Your task to perform on an android device: change notifications settings Image 0: 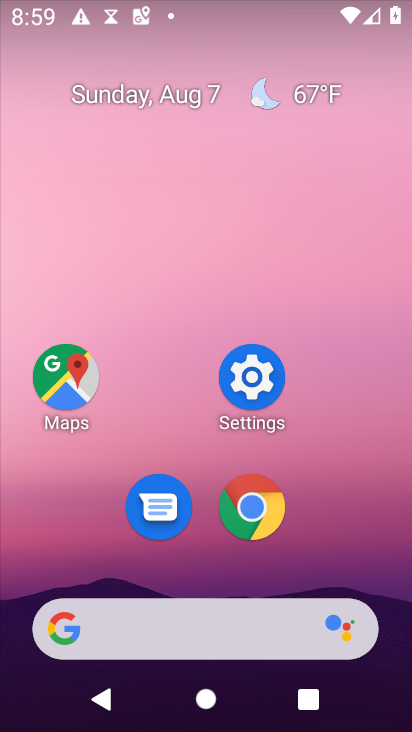
Step 0: click (251, 381)
Your task to perform on an android device: change notifications settings Image 1: 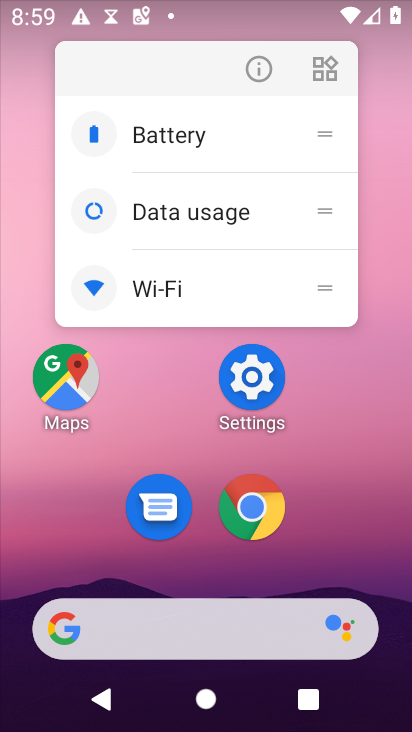
Step 1: click (251, 381)
Your task to perform on an android device: change notifications settings Image 2: 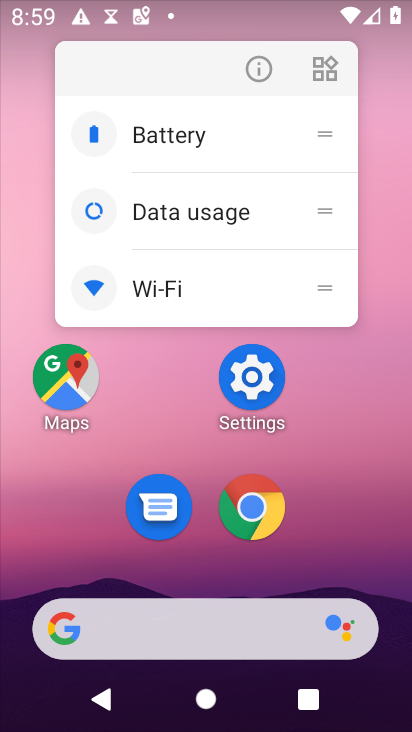
Step 2: click (251, 381)
Your task to perform on an android device: change notifications settings Image 3: 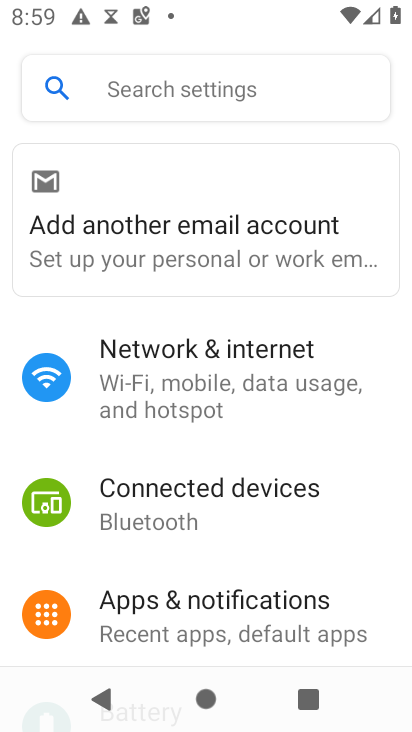
Step 3: drag from (237, 550) to (327, 330)
Your task to perform on an android device: change notifications settings Image 4: 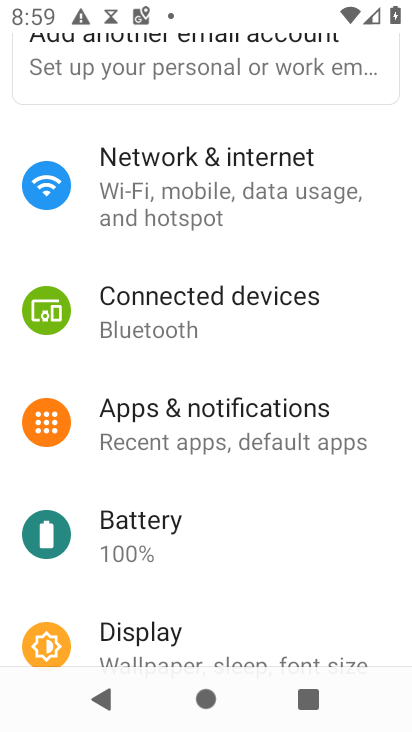
Step 4: click (241, 428)
Your task to perform on an android device: change notifications settings Image 5: 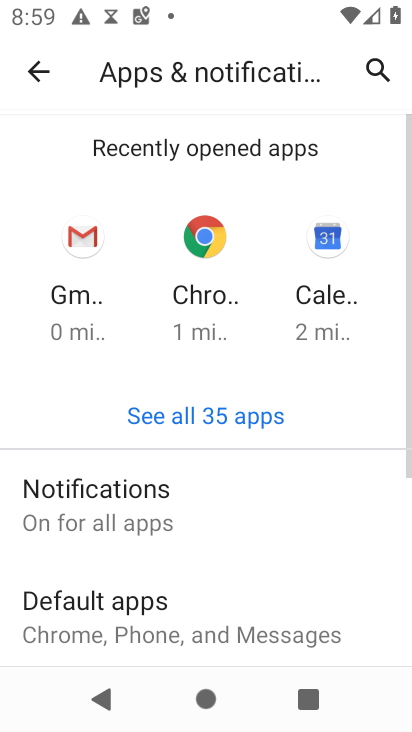
Step 5: click (111, 518)
Your task to perform on an android device: change notifications settings Image 6: 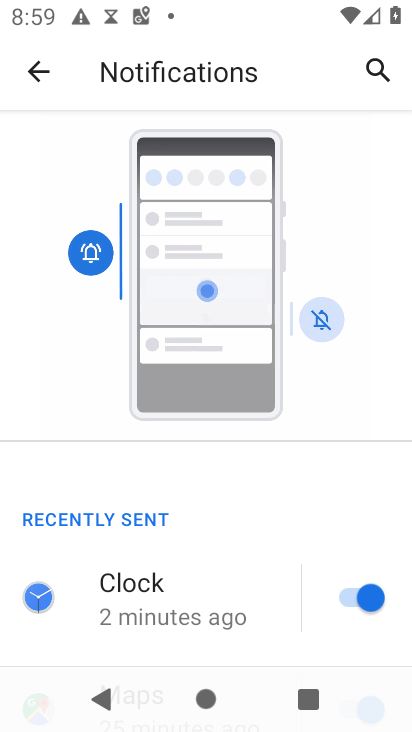
Step 6: drag from (323, 395) to (408, 219)
Your task to perform on an android device: change notifications settings Image 7: 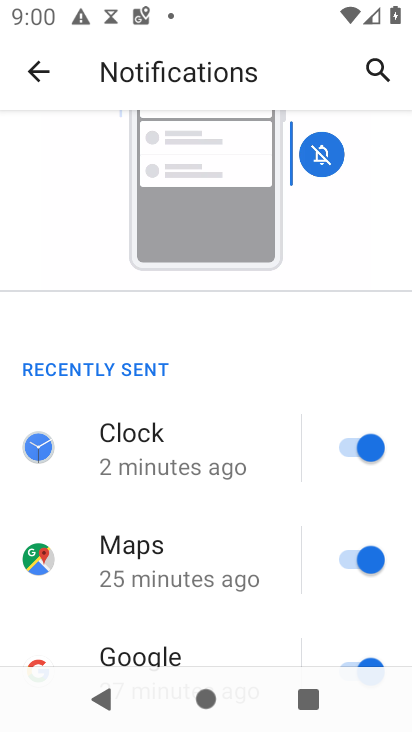
Step 7: click (352, 450)
Your task to perform on an android device: change notifications settings Image 8: 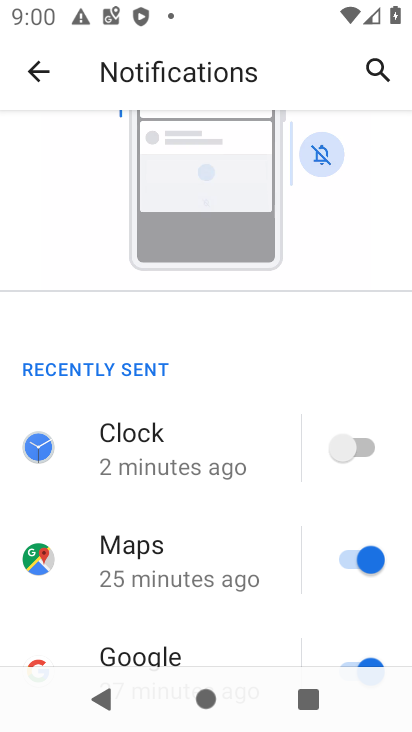
Step 8: task complete